Your task to perform on an android device: Play the last video I watched on Youtube Image 0: 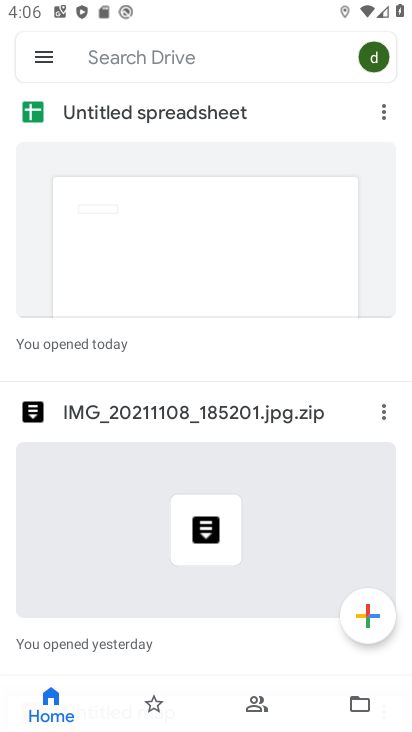
Step 0: press home button
Your task to perform on an android device: Play the last video I watched on Youtube Image 1: 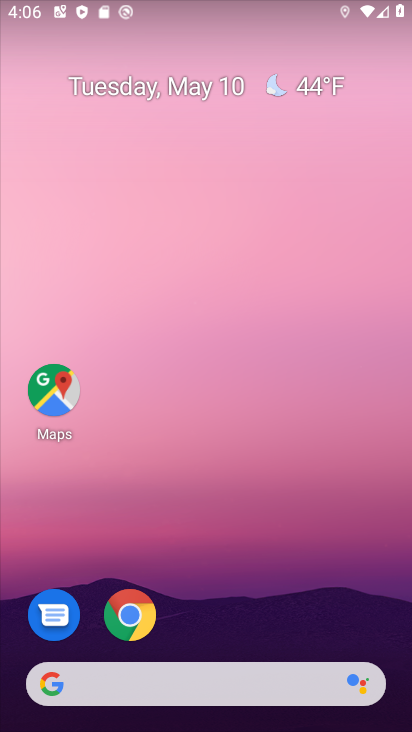
Step 1: drag from (213, 725) to (216, 188)
Your task to perform on an android device: Play the last video I watched on Youtube Image 2: 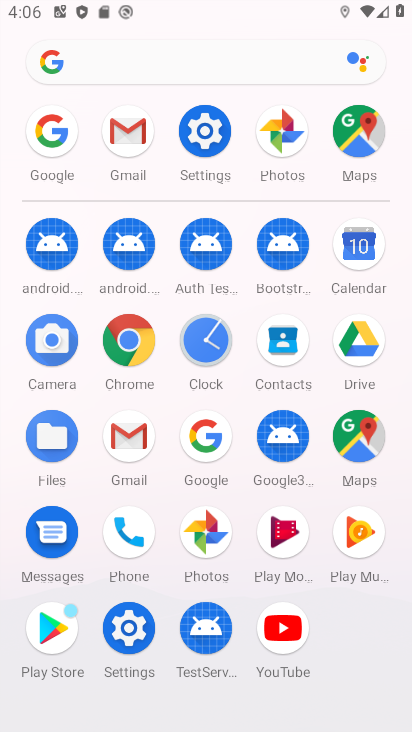
Step 2: click (281, 624)
Your task to perform on an android device: Play the last video I watched on Youtube Image 3: 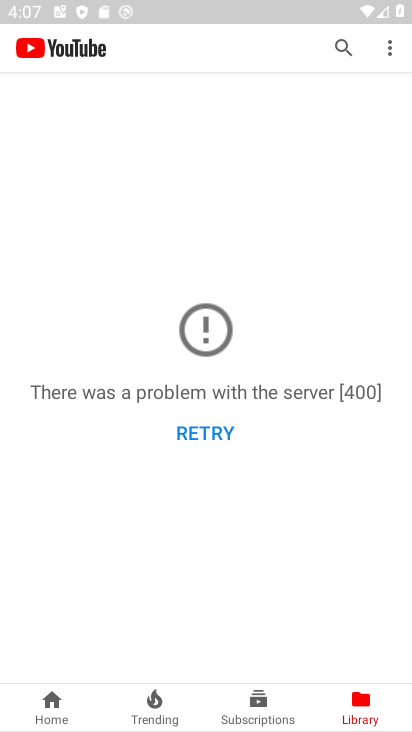
Step 3: task complete